Your task to perform on an android device: toggle translation in the chrome app Image 0: 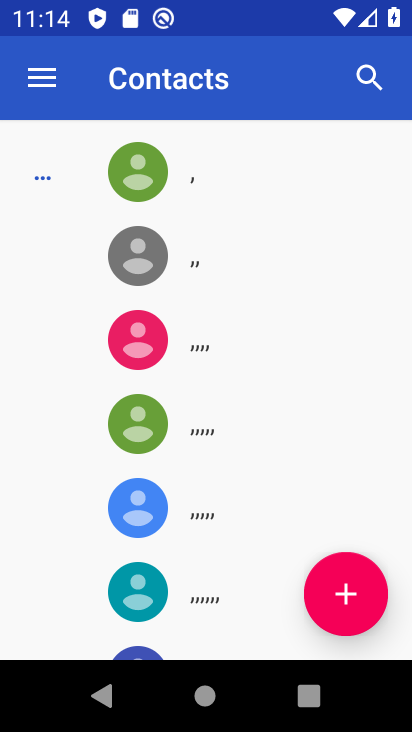
Step 0: press home button
Your task to perform on an android device: toggle translation in the chrome app Image 1: 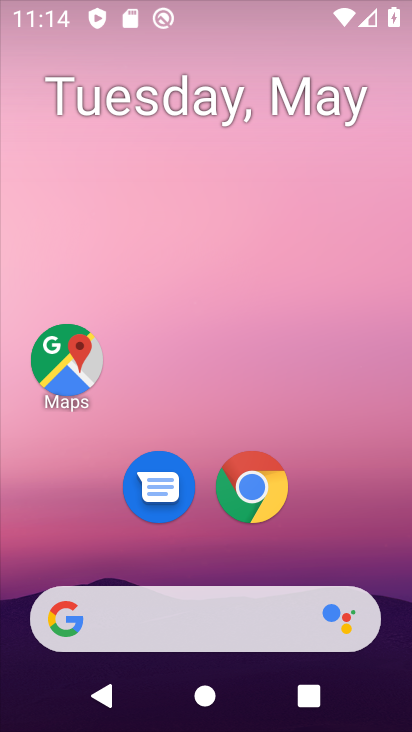
Step 1: drag from (307, 526) to (324, 161)
Your task to perform on an android device: toggle translation in the chrome app Image 2: 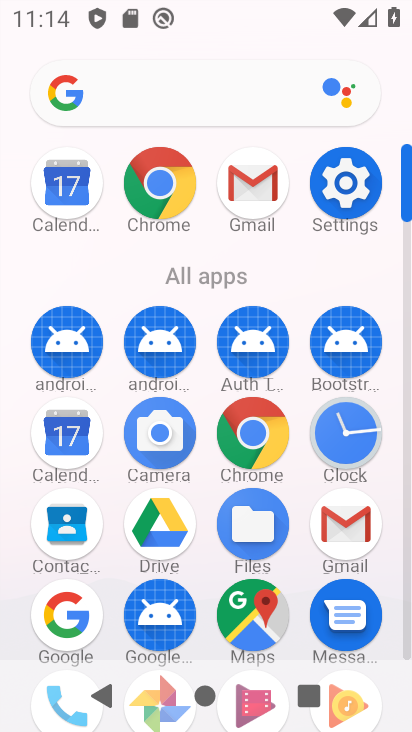
Step 2: click (187, 172)
Your task to perform on an android device: toggle translation in the chrome app Image 3: 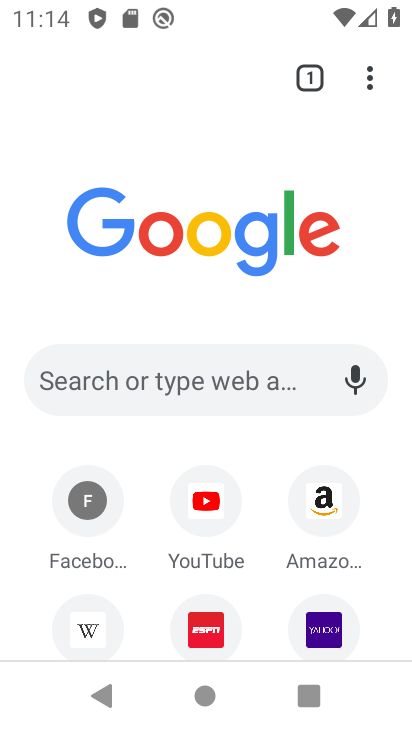
Step 3: click (367, 73)
Your task to perform on an android device: toggle translation in the chrome app Image 4: 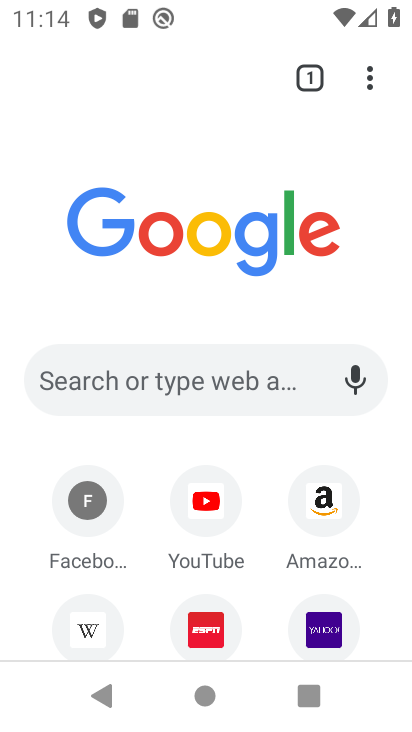
Step 4: click (366, 79)
Your task to perform on an android device: toggle translation in the chrome app Image 5: 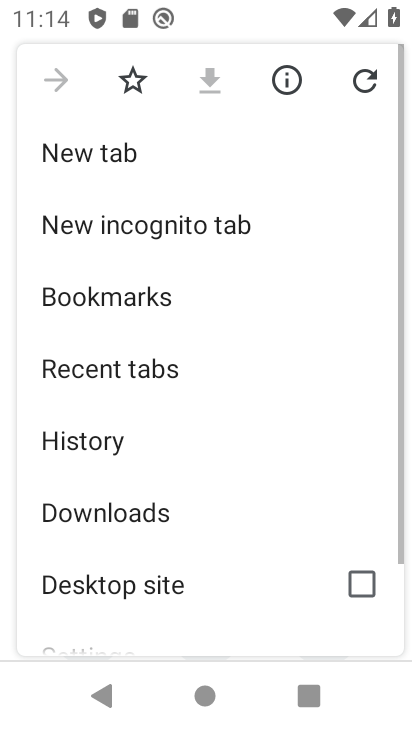
Step 5: click (177, 582)
Your task to perform on an android device: toggle translation in the chrome app Image 6: 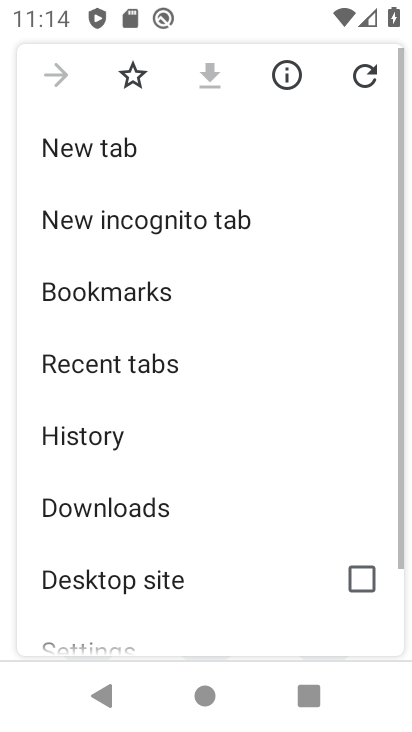
Step 6: drag from (184, 551) to (247, 205)
Your task to perform on an android device: toggle translation in the chrome app Image 7: 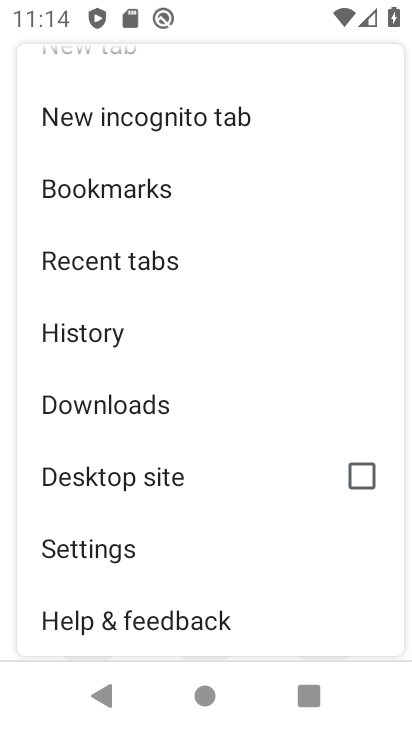
Step 7: click (120, 542)
Your task to perform on an android device: toggle translation in the chrome app Image 8: 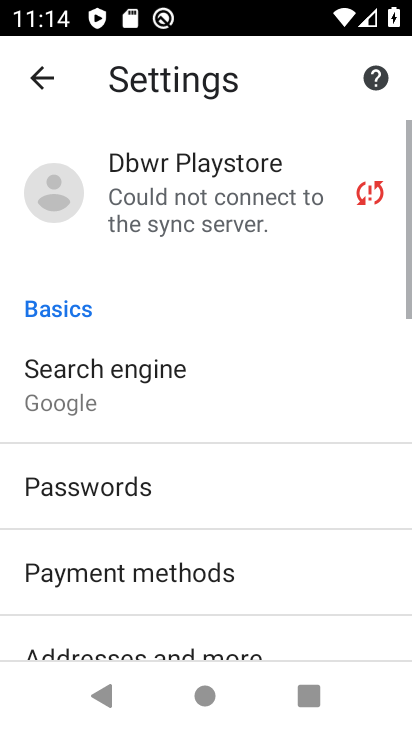
Step 8: drag from (199, 602) to (281, 141)
Your task to perform on an android device: toggle translation in the chrome app Image 9: 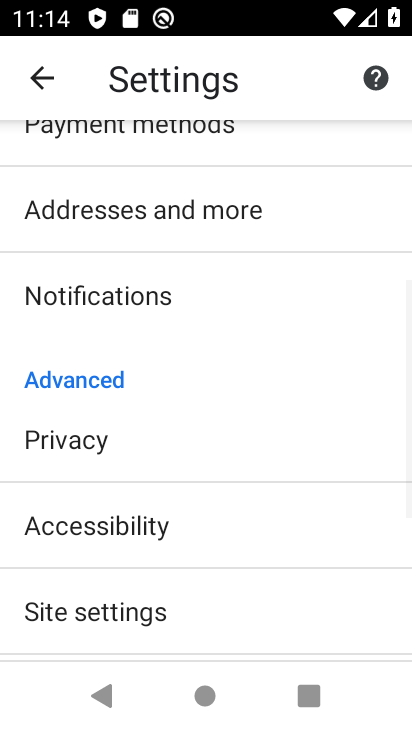
Step 9: drag from (147, 614) to (244, 284)
Your task to perform on an android device: toggle translation in the chrome app Image 10: 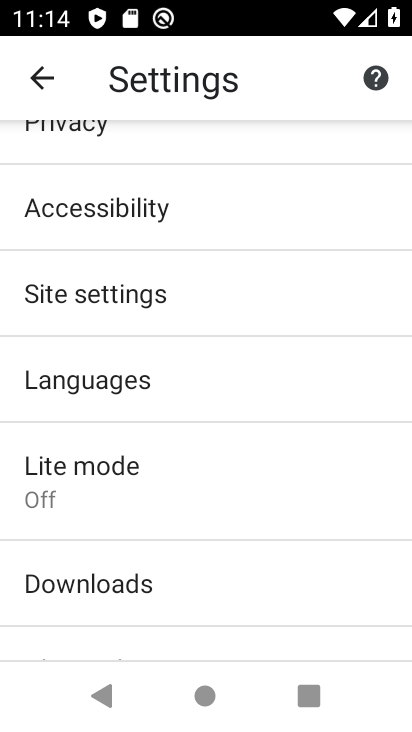
Step 10: click (180, 379)
Your task to perform on an android device: toggle translation in the chrome app Image 11: 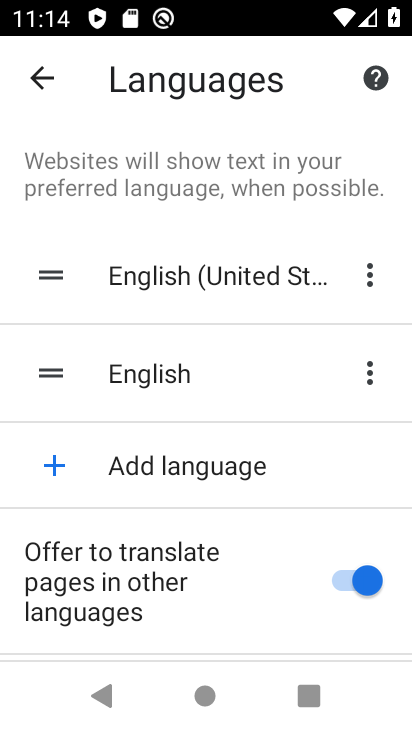
Step 11: click (341, 576)
Your task to perform on an android device: toggle translation in the chrome app Image 12: 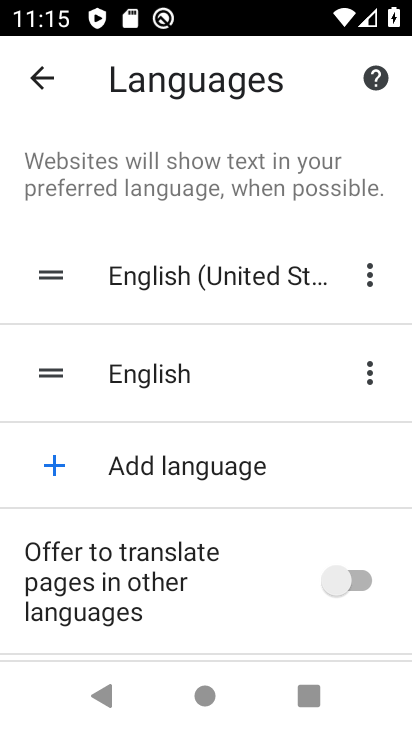
Step 12: task complete